Your task to perform on an android device: Go to Google Image 0: 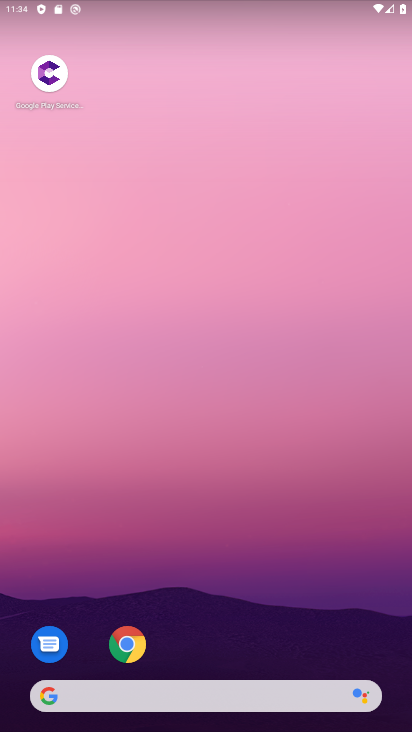
Step 0: drag from (255, 615) to (218, 88)
Your task to perform on an android device: Go to Google Image 1: 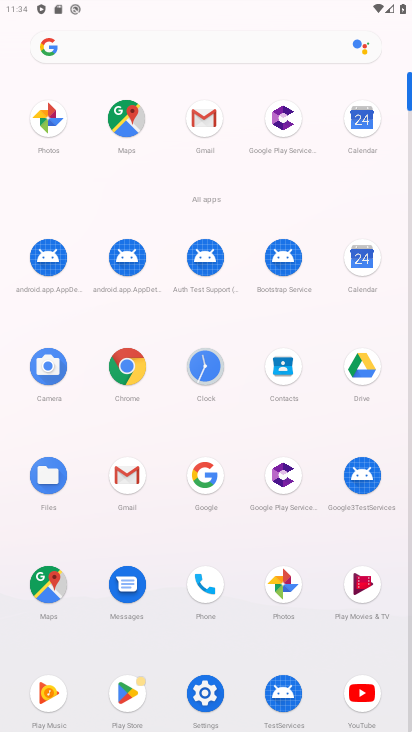
Step 1: click (202, 483)
Your task to perform on an android device: Go to Google Image 2: 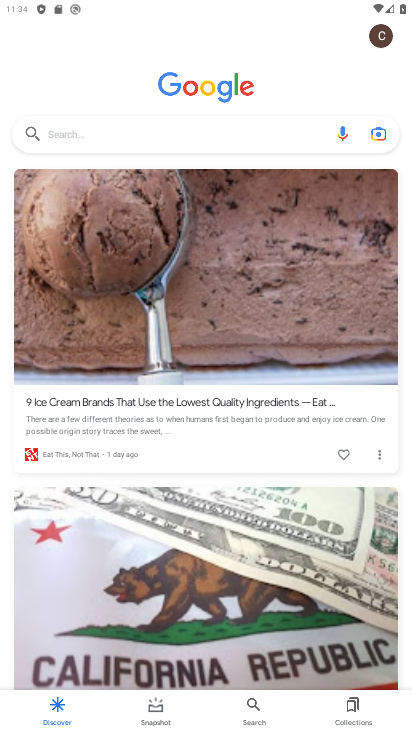
Step 2: task complete